Your task to perform on an android device: set an alarm Image 0: 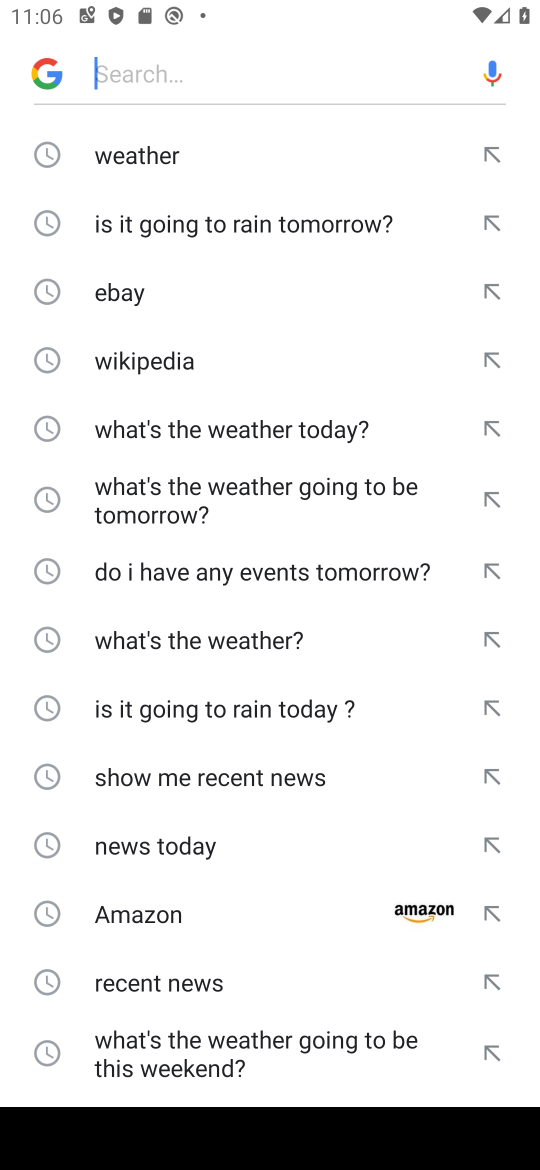
Step 0: press back button
Your task to perform on an android device: set an alarm Image 1: 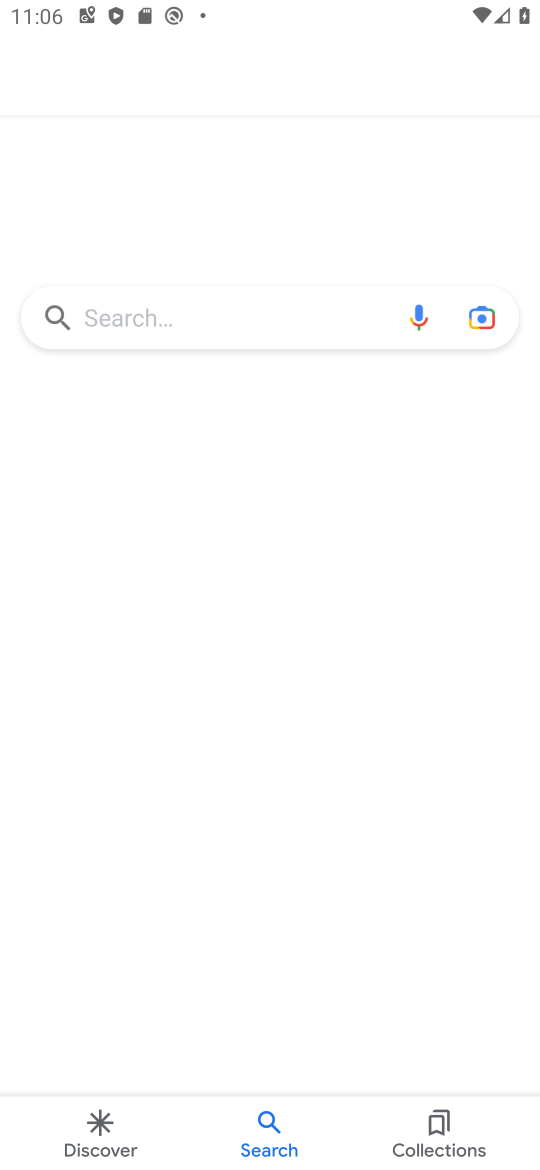
Step 1: press back button
Your task to perform on an android device: set an alarm Image 2: 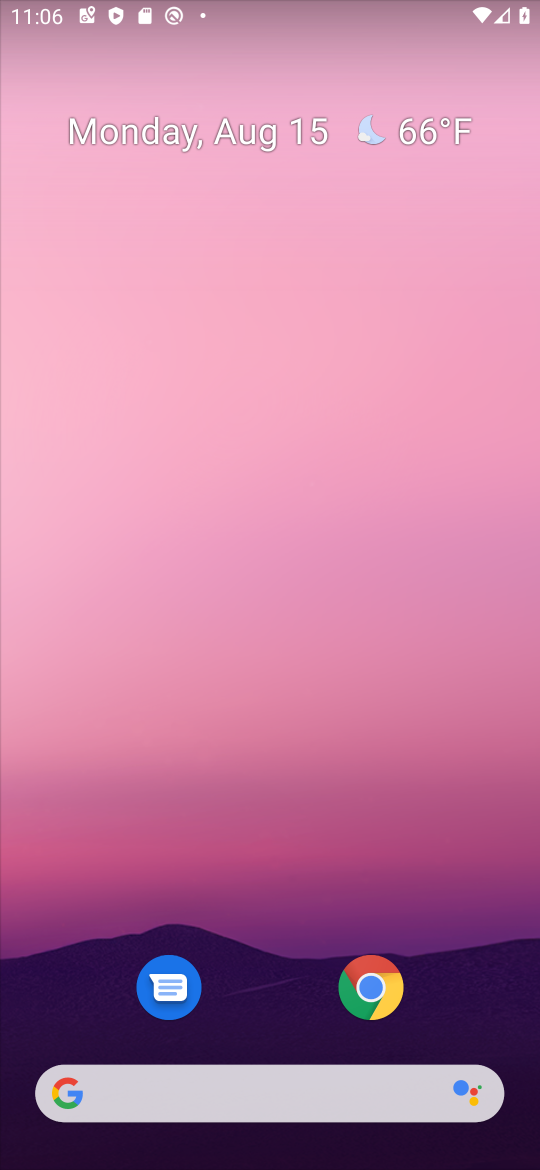
Step 2: drag from (260, 1066) to (141, 128)
Your task to perform on an android device: set an alarm Image 3: 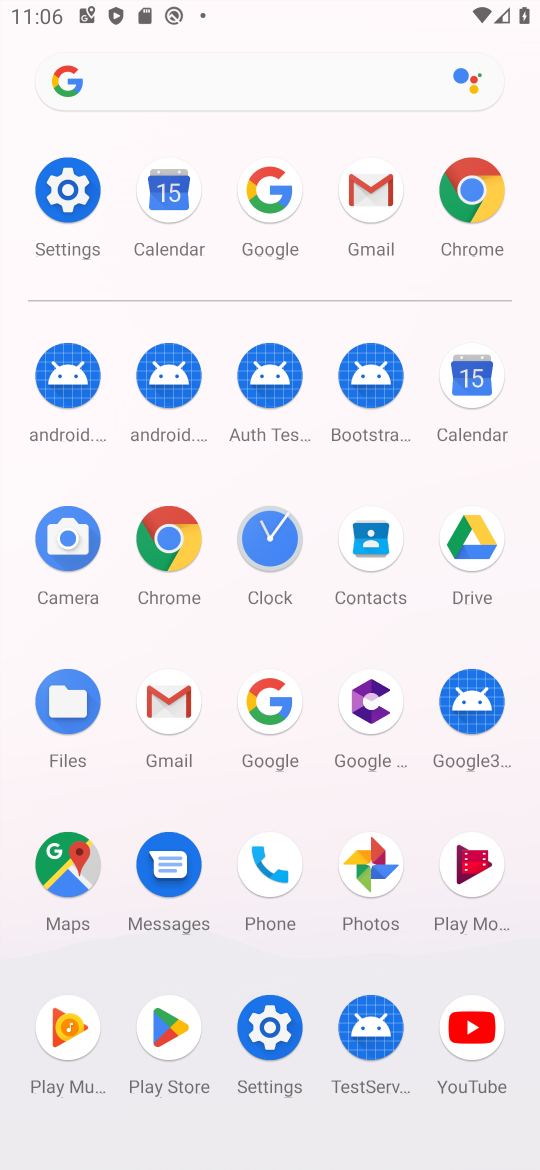
Step 3: click (248, 555)
Your task to perform on an android device: set an alarm Image 4: 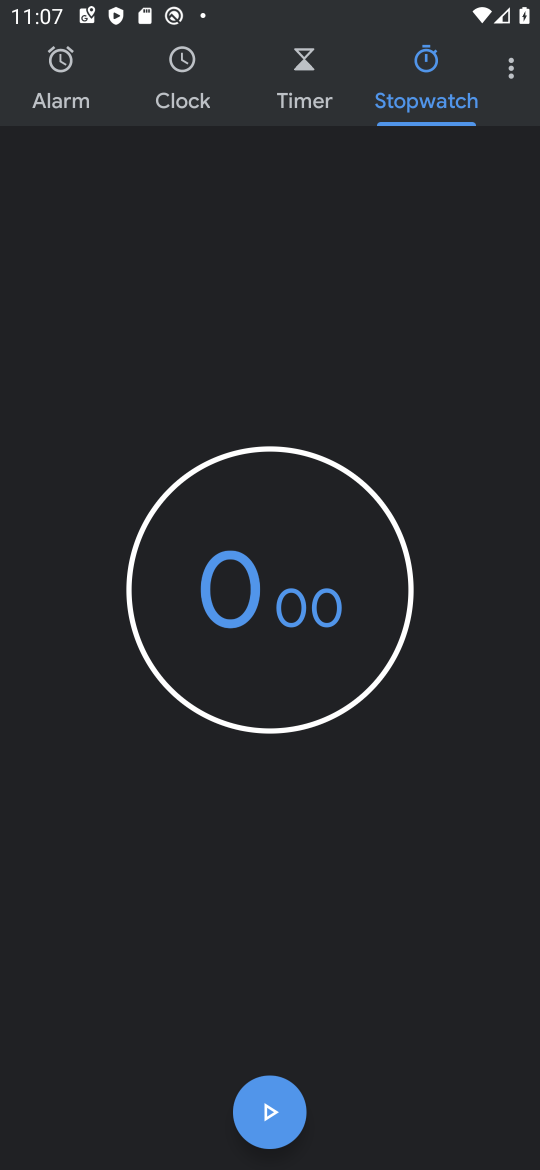
Step 4: click (76, 85)
Your task to perform on an android device: set an alarm Image 5: 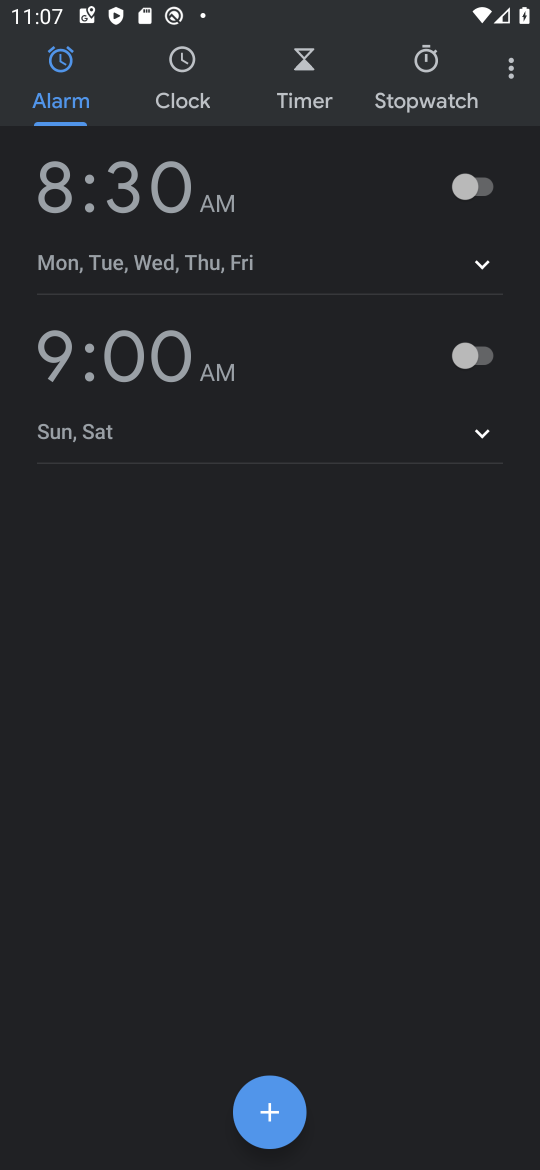
Step 5: click (263, 1125)
Your task to perform on an android device: set an alarm Image 6: 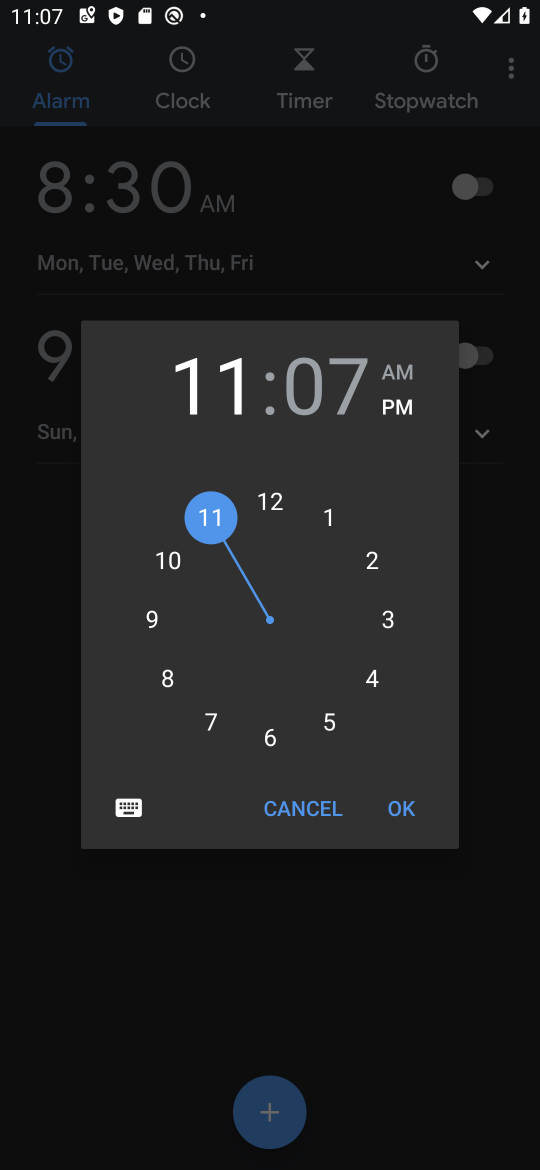
Step 6: click (404, 804)
Your task to perform on an android device: set an alarm Image 7: 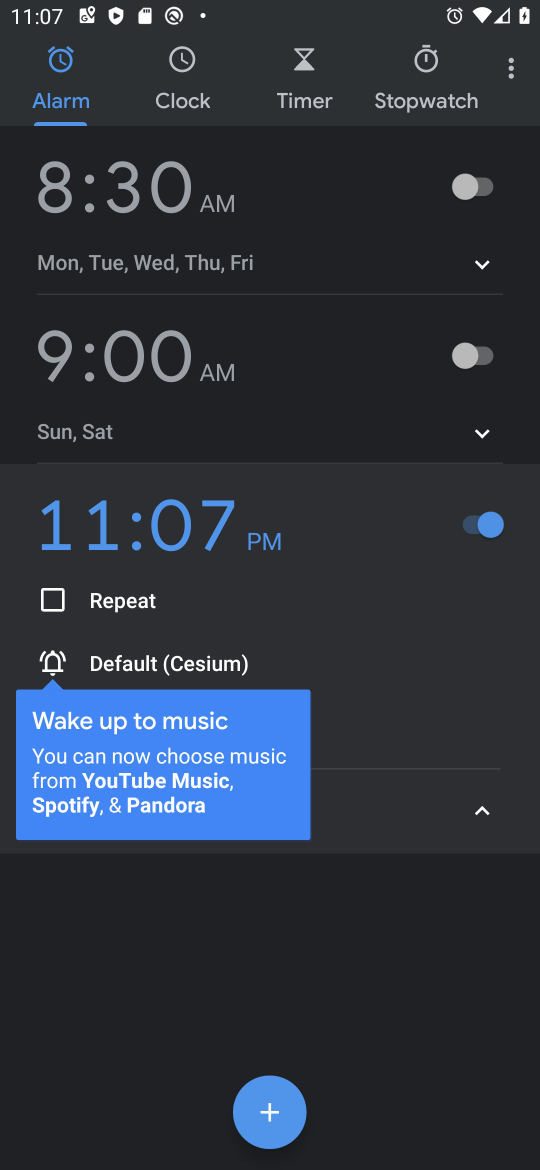
Step 7: task complete